Your task to perform on an android device: turn off notifications settings in the gmail app Image 0: 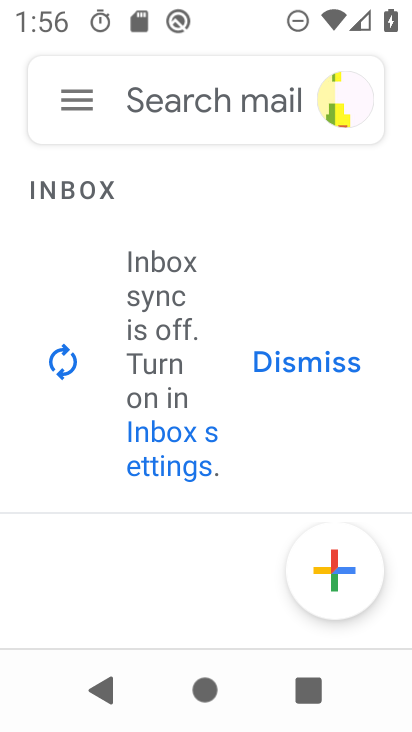
Step 0: press home button
Your task to perform on an android device: turn off notifications settings in the gmail app Image 1: 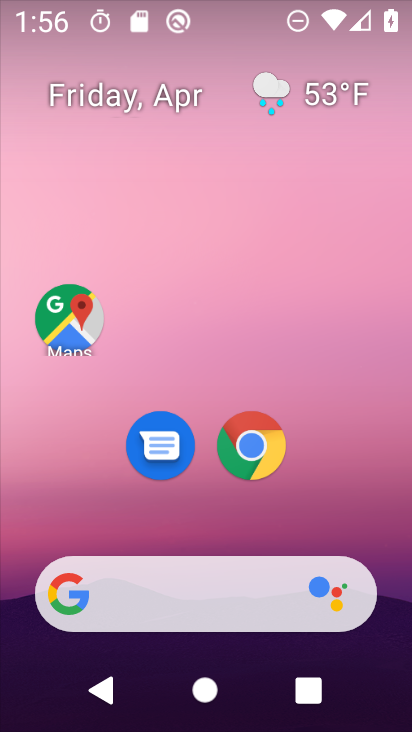
Step 1: drag from (359, 502) to (359, 166)
Your task to perform on an android device: turn off notifications settings in the gmail app Image 2: 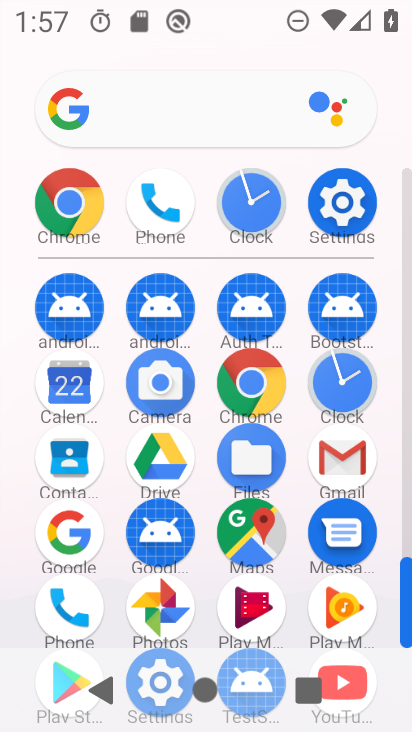
Step 2: click (348, 458)
Your task to perform on an android device: turn off notifications settings in the gmail app Image 3: 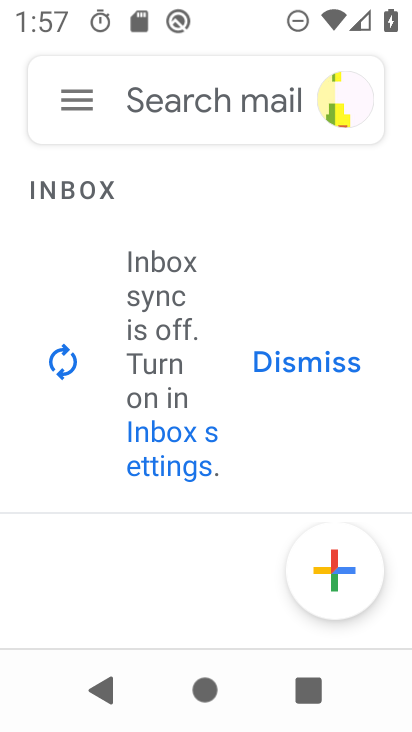
Step 3: click (76, 102)
Your task to perform on an android device: turn off notifications settings in the gmail app Image 4: 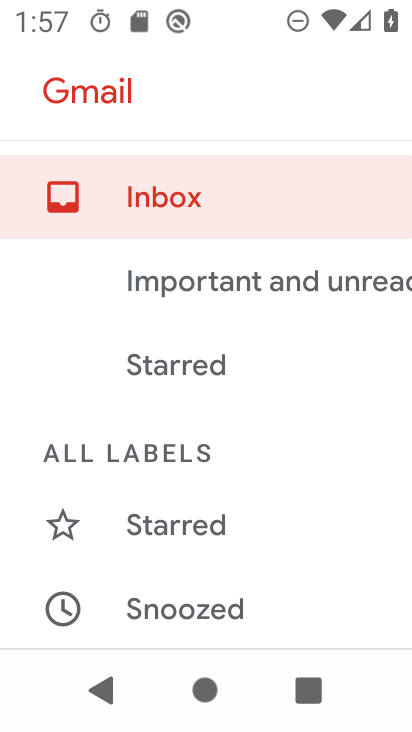
Step 4: drag from (292, 556) to (292, 396)
Your task to perform on an android device: turn off notifications settings in the gmail app Image 5: 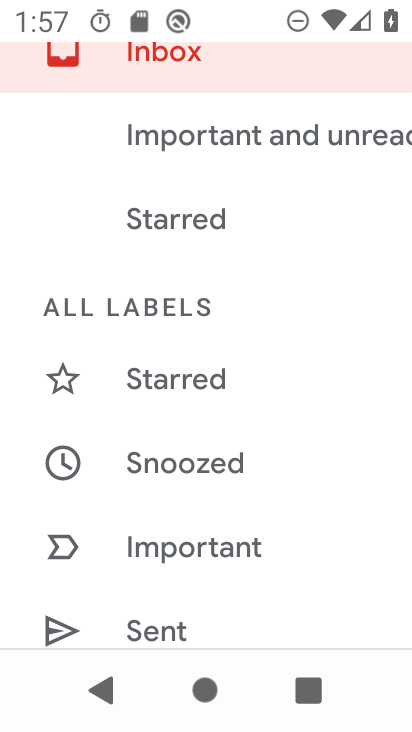
Step 5: drag from (312, 581) to (314, 365)
Your task to perform on an android device: turn off notifications settings in the gmail app Image 6: 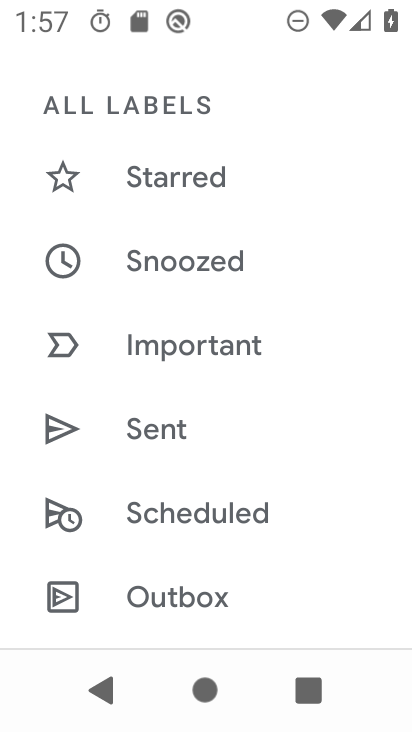
Step 6: drag from (310, 576) to (314, 384)
Your task to perform on an android device: turn off notifications settings in the gmail app Image 7: 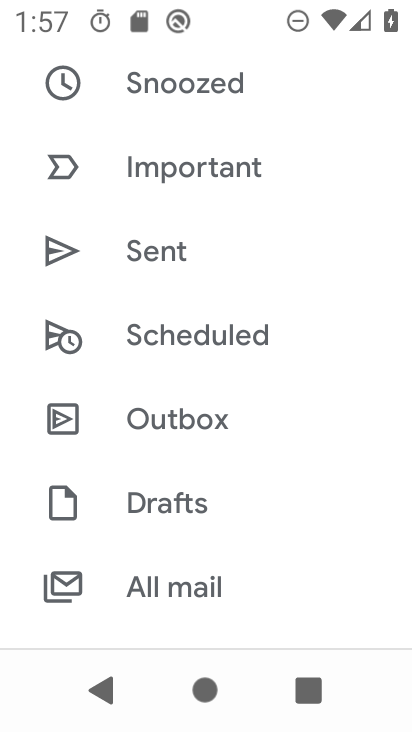
Step 7: drag from (292, 584) to (294, 351)
Your task to perform on an android device: turn off notifications settings in the gmail app Image 8: 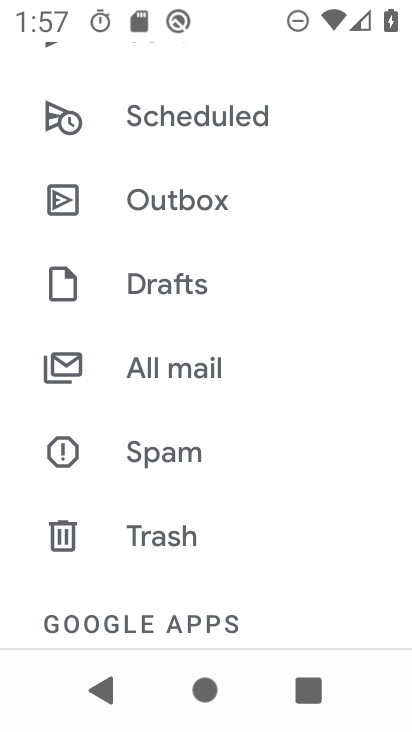
Step 8: drag from (283, 575) to (284, 322)
Your task to perform on an android device: turn off notifications settings in the gmail app Image 9: 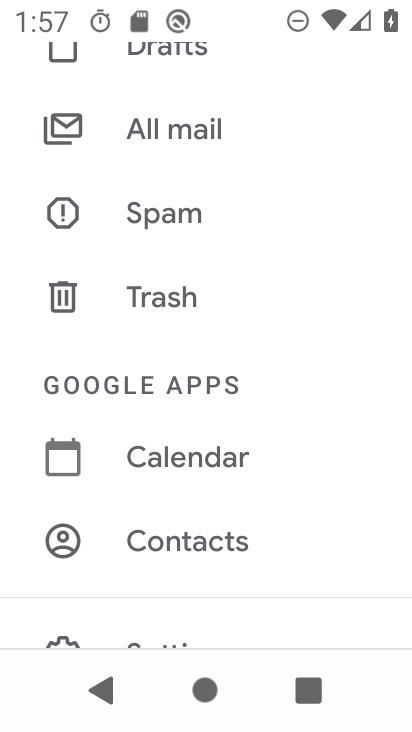
Step 9: drag from (302, 585) to (301, 431)
Your task to perform on an android device: turn off notifications settings in the gmail app Image 10: 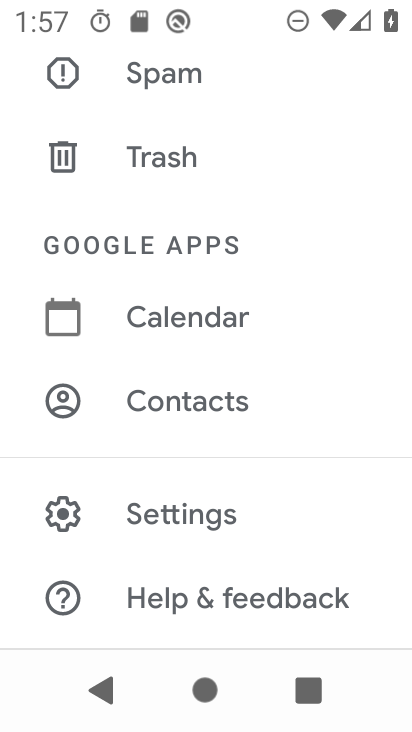
Step 10: click (220, 527)
Your task to perform on an android device: turn off notifications settings in the gmail app Image 11: 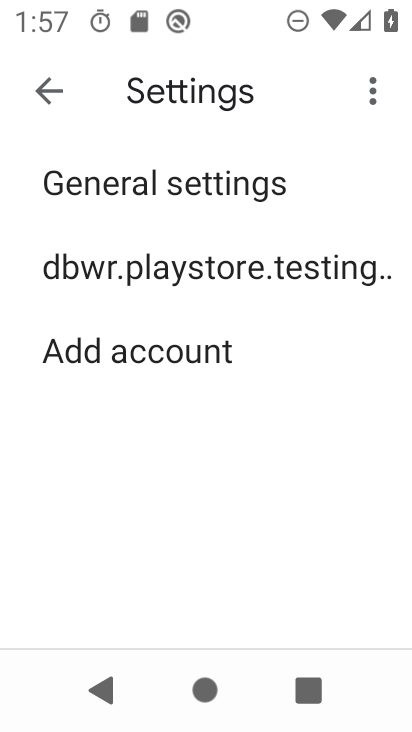
Step 11: click (288, 264)
Your task to perform on an android device: turn off notifications settings in the gmail app Image 12: 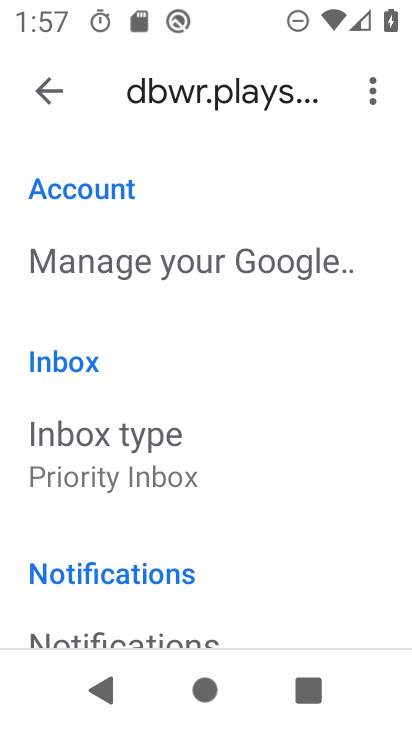
Step 12: drag from (280, 576) to (270, 376)
Your task to perform on an android device: turn off notifications settings in the gmail app Image 13: 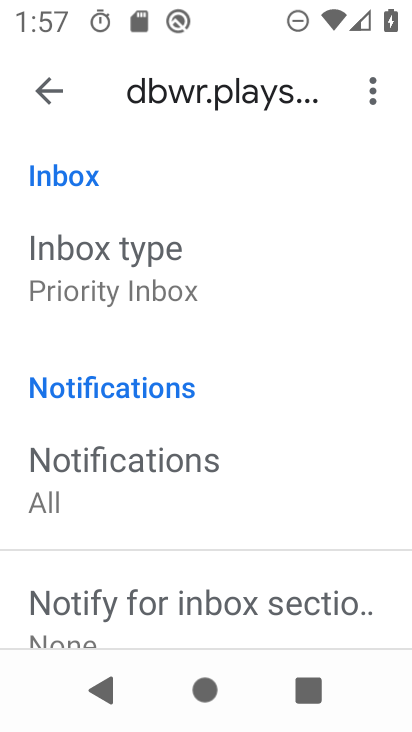
Step 13: drag from (277, 532) to (268, 322)
Your task to perform on an android device: turn off notifications settings in the gmail app Image 14: 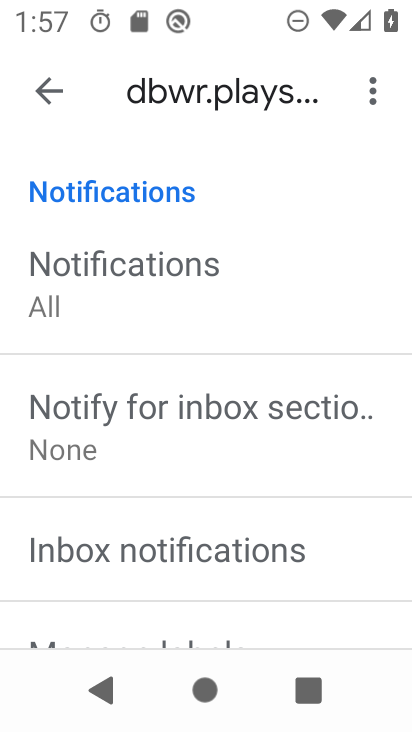
Step 14: drag from (329, 579) to (327, 312)
Your task to perform on an android device: turn off notifications settings in the gmail app Image 15: 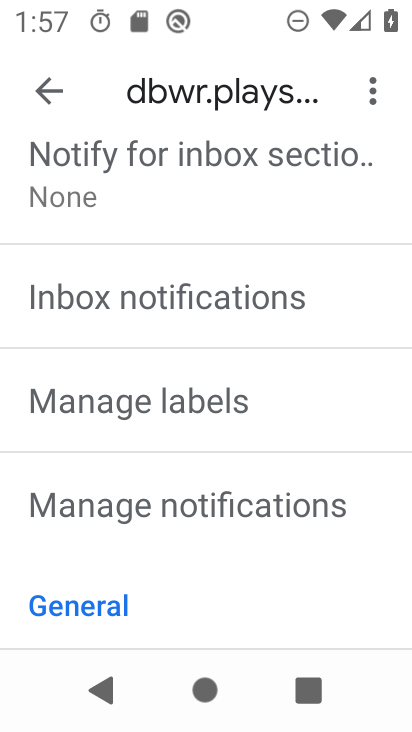
Step 15: click (286, 517)
Your task to perform on an android device: turn off notifications settings in the gmail app Image 16: 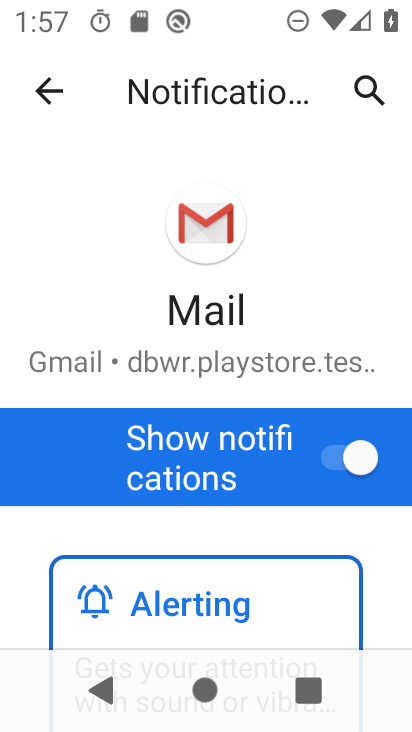
Step 16: click (333, 450)
Your task to perform on an android device: turn off notifications settings in the gmail app Image 17: 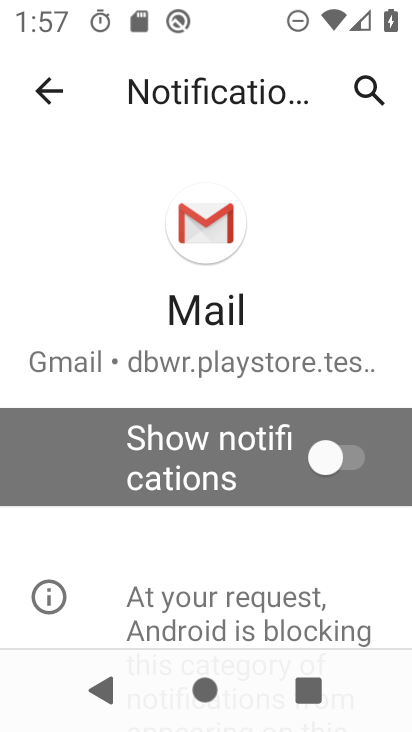
Step 17: task complete